Your task to perform on an android device: Open Google Maps and go to "Timeline" Image 0: 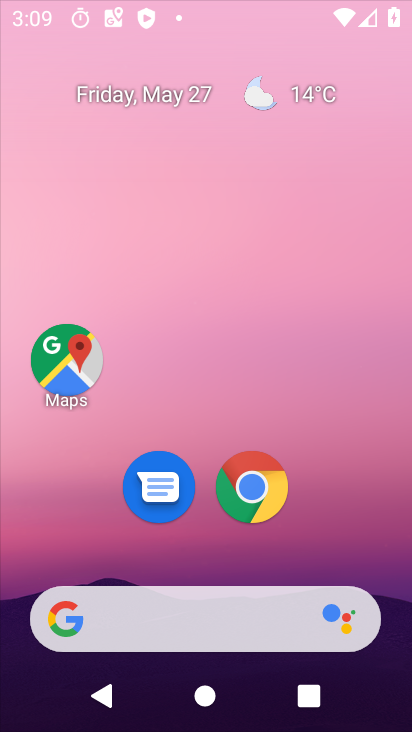
Step 0: drag from (366, 385) to (334, 88)
Your task to perform on an android device: Open Google Maps and go to "Timeline" Image 1: 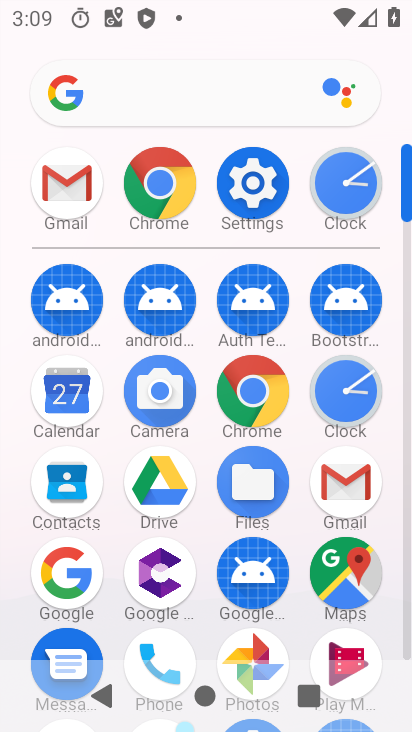
Step 1: drag from (287, 518) to (292, 86)
Your task to perform on an android device: Open Google Maps and go to "Timeline" Image 2: 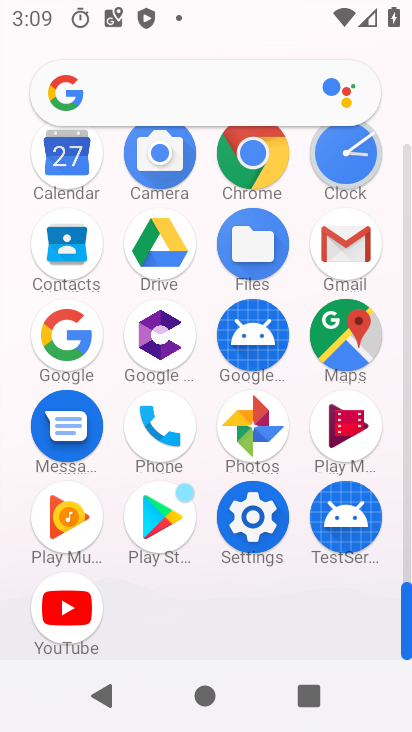
Step 2: drag from (299, 276) to (296, 685)
Your task to perform on an android device: Open Google Maps and go to "Timeline" Image 3: 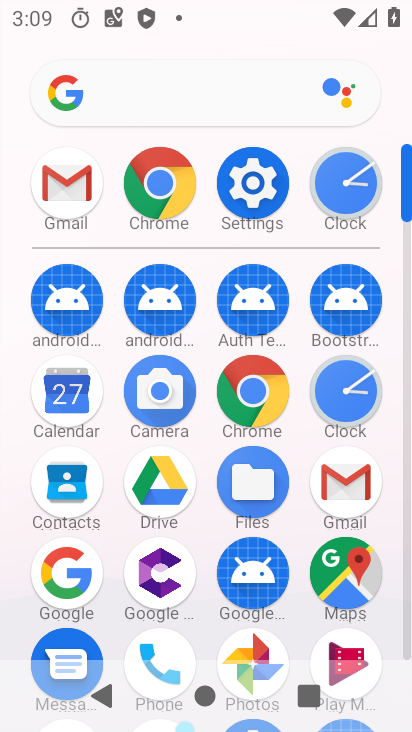
Step 3: click (339, 555)
Your task to perform on an android device: Open Google Maps and go to "Timeline" Image 4: 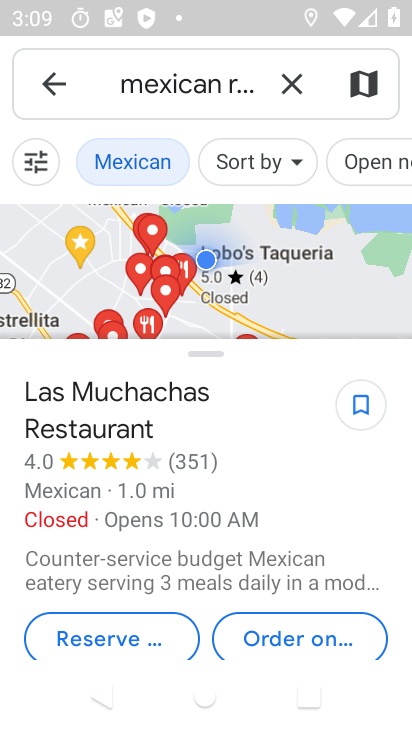
Step 4: click (61, 73)
Your task to perform on an android device: Open Google Maps and go to "Timeline" Image 5: 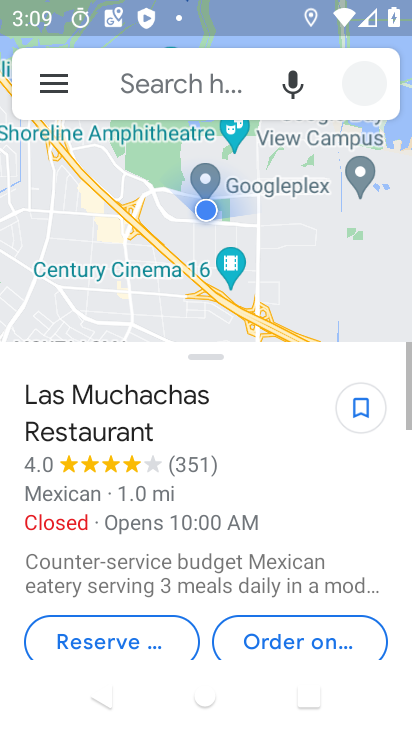
Step 5: click (34, 77)
Your task to perform on an android device: Open Google Maps and go to "Timeline" Image 6: 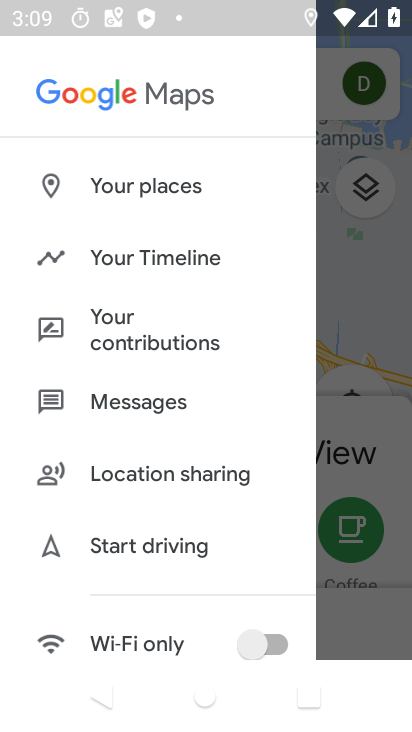
Step 6: click (171, 254)
Your task to perform on an android device: Open Google Maps and go to "Timeline" Image 7: 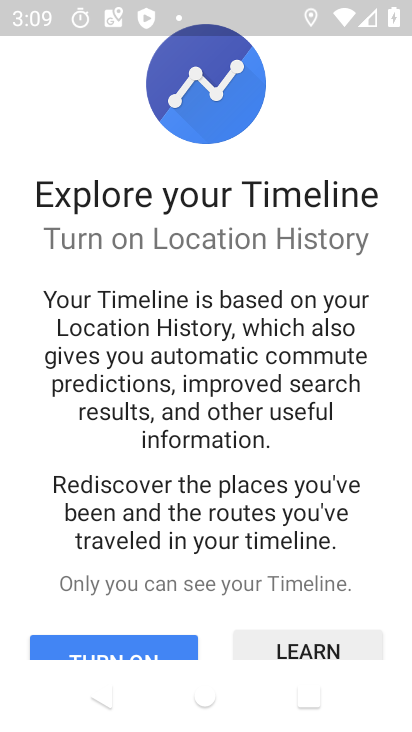
Step 7: click (132, 653)
Your task to perform on an android device: Open Google Maps and go to "Timeline" Image 8: 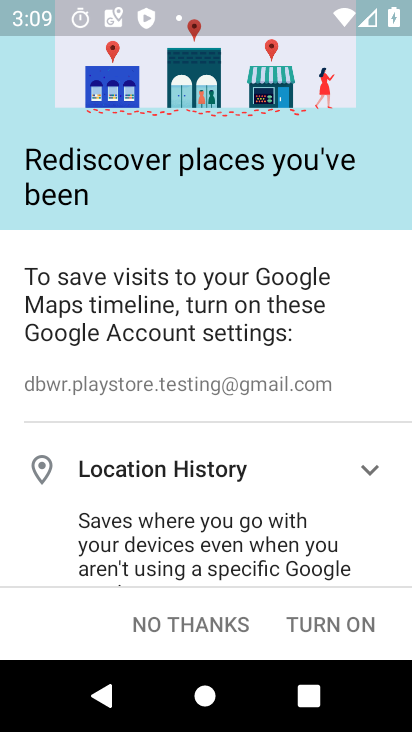
Step 8: click (215, 627)
Your task to perform on an android device: Open Google Maps and go to "Timeline" Image 9: 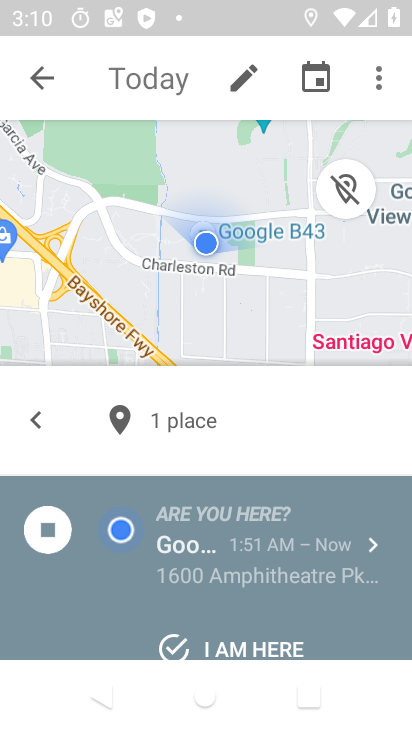
Step 9: task complete